Your task to perform on an android device: turn off location Image 0: 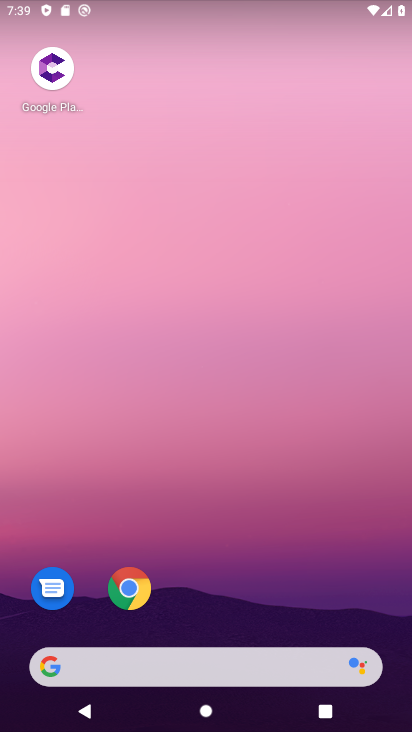
Step 0: drag from (295, 415) to (214, 48)
Your task to perform on an android device: turn off location Image 1: 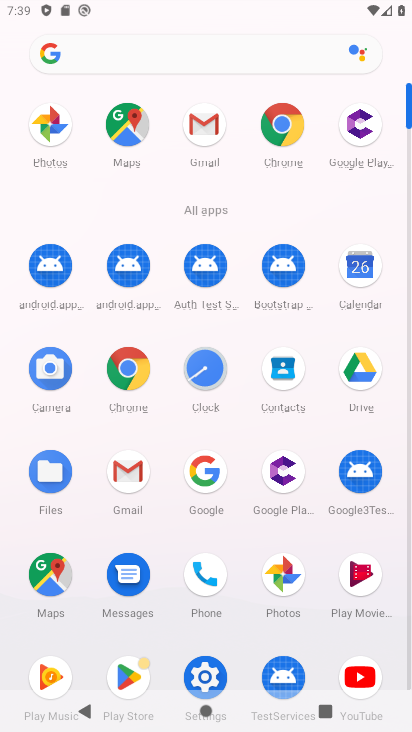
Step 1: click (215, 675)
Your task to perform on an android device: turn off location Image 2: 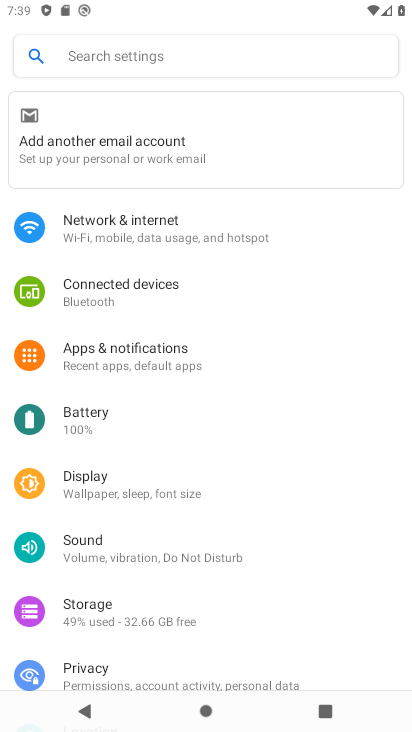
Step 2: drag from (151, 607) to (180, 236)
Your task to perform on an android device: turn off location Image 3: 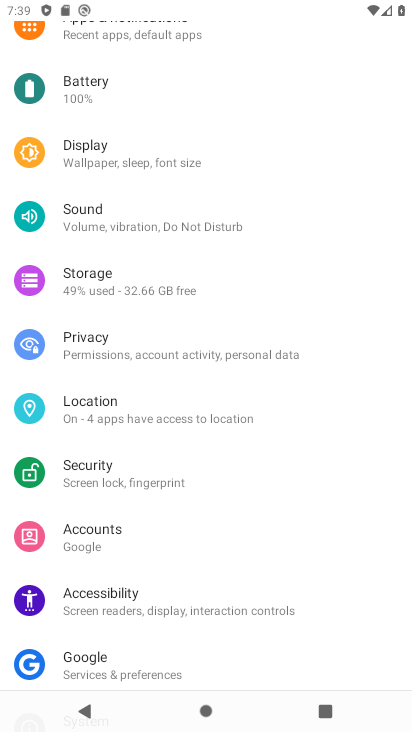
Step 3: click (103, 408)
Your task to perform on an android device: turn off location Image 4: 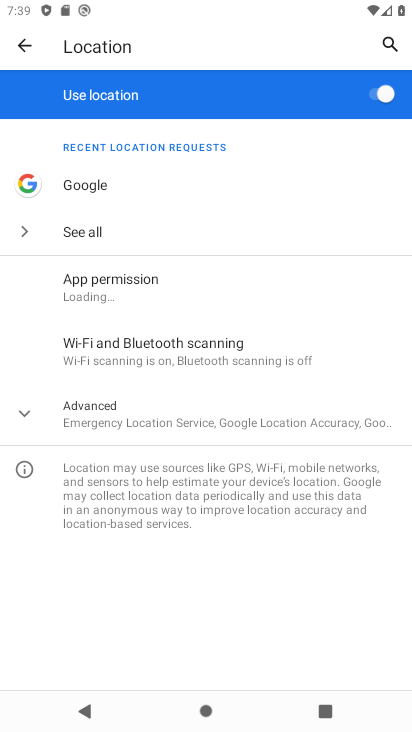
Step 4: click (386, 83)
Your task to perform on an android device: turn off location Image 5: 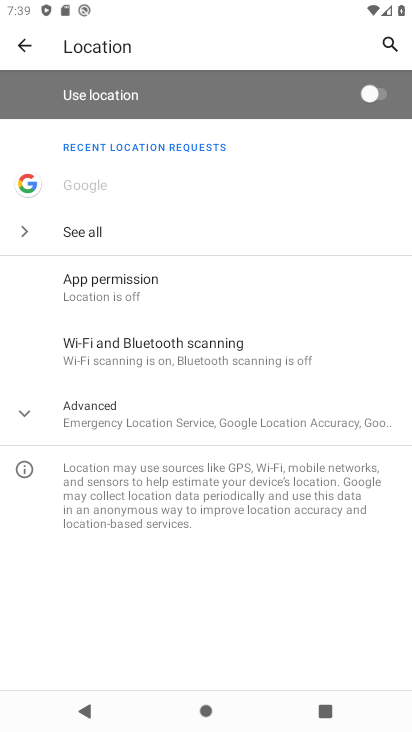
Step 5: task complete